Your task to perform on an android device: delete the emails in spam in the gmail app Image 0: 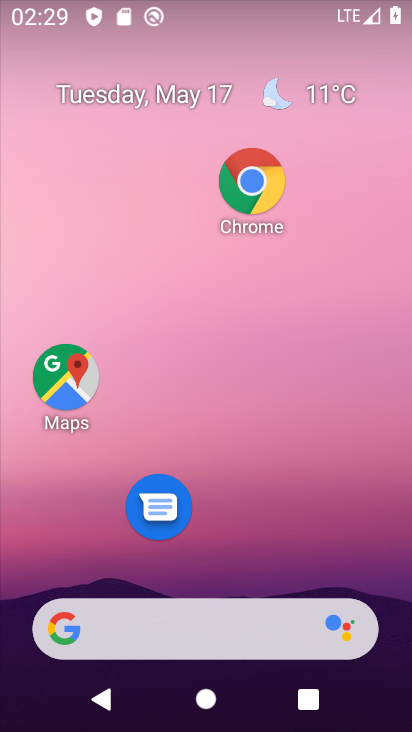
Step 0: drag from (212, 554) to (205, 176)
Your task to perform on an android device: delete the emails in spam in the gmail app Image 1: 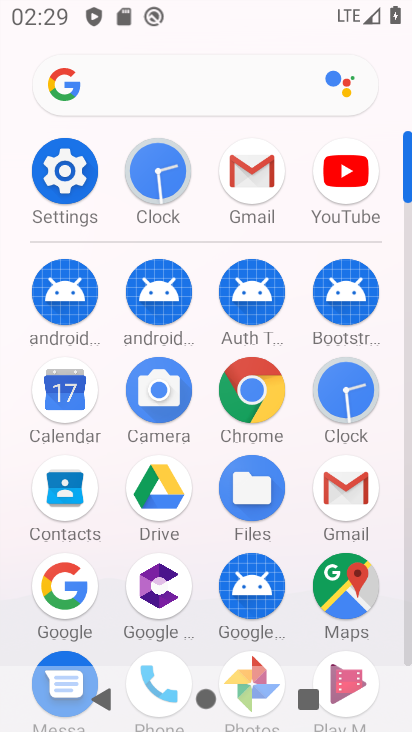
Step 1: click (245, 194)
Your task to perform on an android device: delete the emails in spam in the gmail app Image 2: 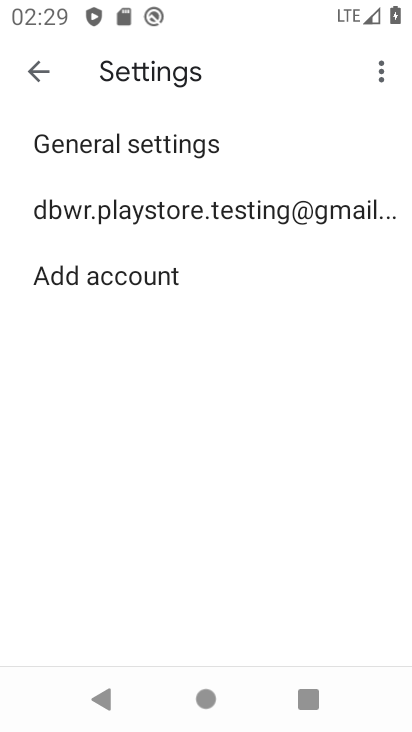
Step 2: click (86, 203)
Your task to perform on an android device: delete the emails in spam in the gmail app Image 3: 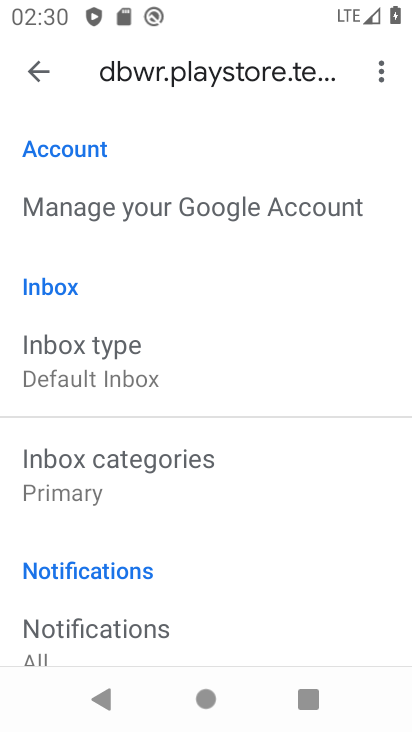
Step 3: click (35, 84)
Your task to perform on an android device: delete the emails in spam in the gmail app Image 4: 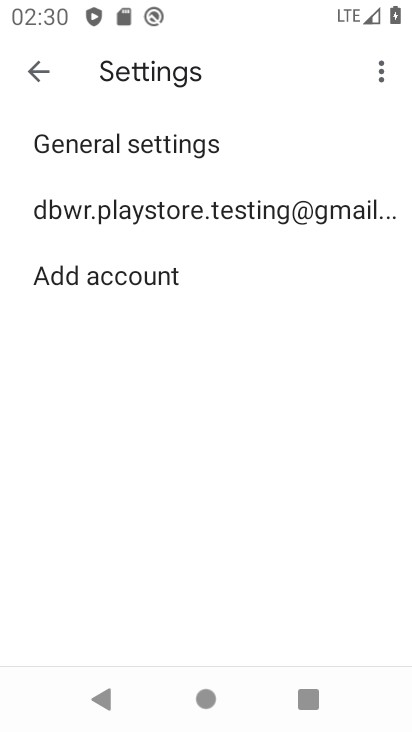
Step 4: click (35, 84)
Your task to perform on an android device: delete the emails in spam in the gmail app Image 5: 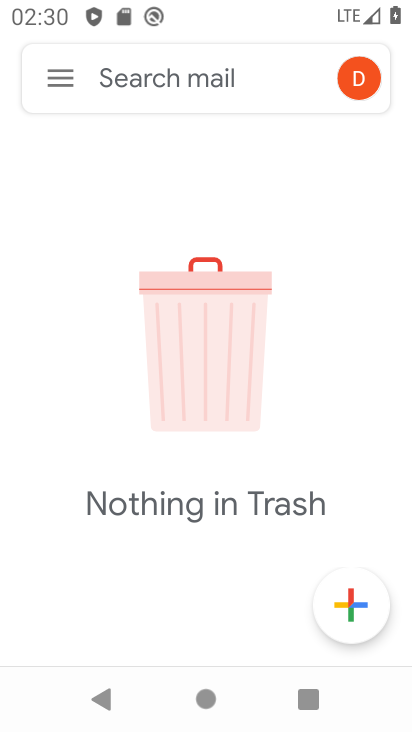
Step 5: click (35, 84)
Your task to perform on an android device: delete the emails in spam in the gmail app Image 6: 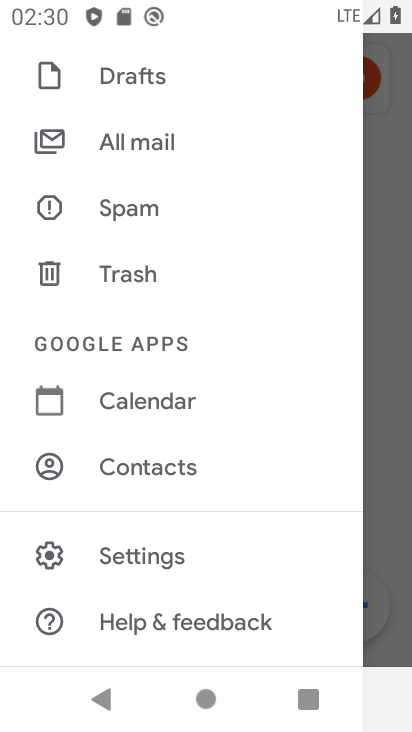
Step 6: click (143, 201)
Your task to perform on an android device: delete the emails in spam in the gmail app Image 7: 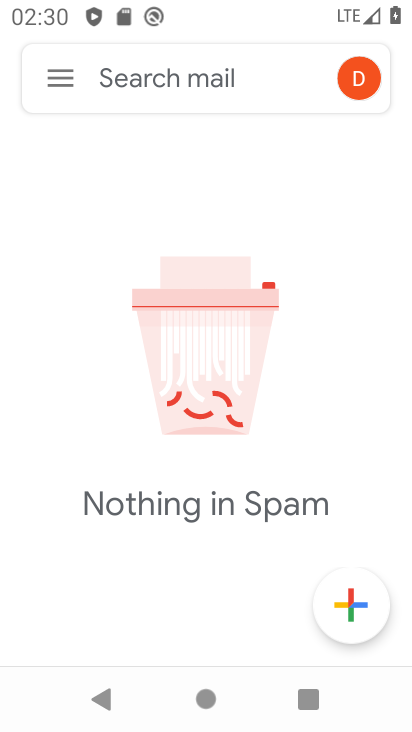
Step 7: task complete